Your task to perform on an android device: Is it going to rain this weekend? Image 0: 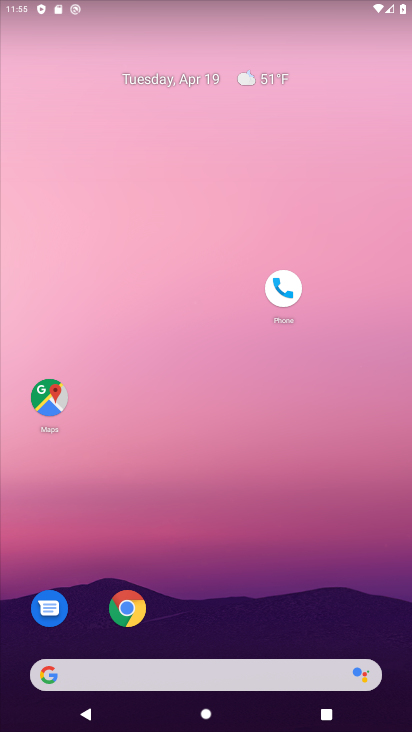
Step 0: click (130, 611)
Your task to perform on an android device: Is it going to rain this weekend? Image 1: 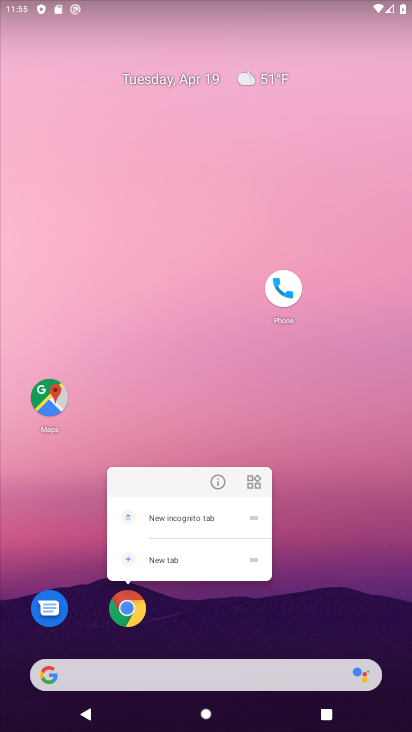
Step 1: click (213, 487)
Your task to perform on an android device: Is it going to rain this weekend? Image 2: 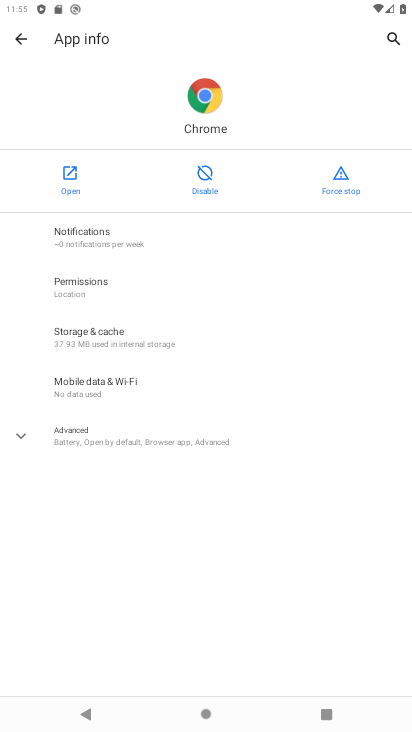
Step 2: click (67, 183)
Your task to perform on an android device: Is it going to rain this weekend? Image 3: 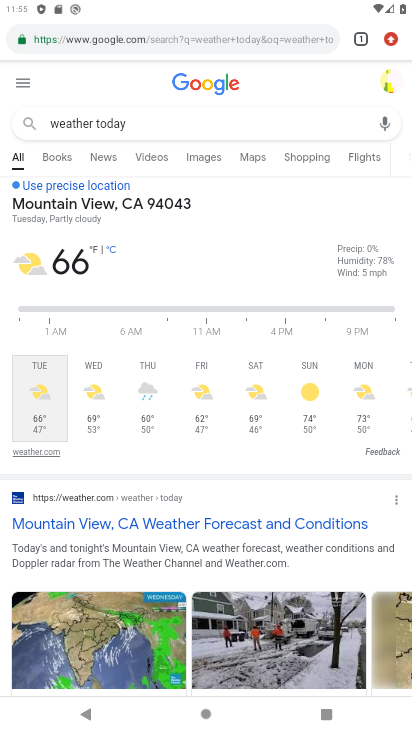
Step 3: click (129, 127)
Your task to perform on an android device: Is it going to rain this weekend? Image 4: 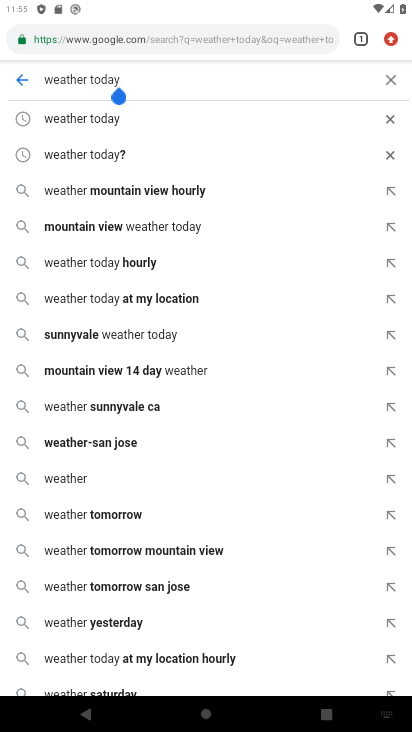
Step 4: click (383, 83)
Your task to perform on an android device: Is it going to rain this weekend? Image 5: 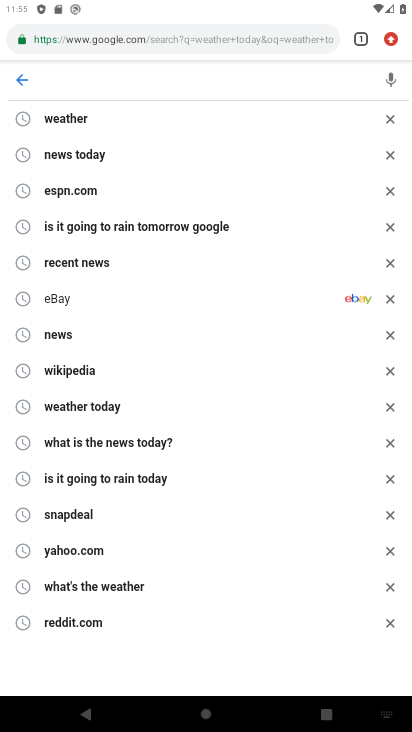
Step 5: type "is it going rain this weekend?"
Your task to perform on an android device: Is it going to rain this weekend? Image 6: 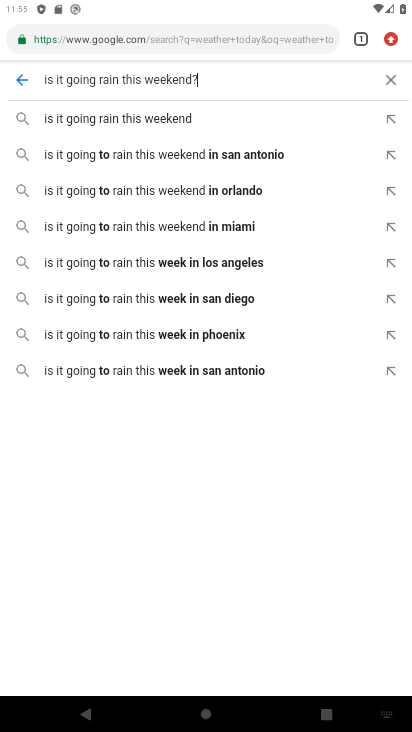
Step 6: click (120, 126)
Your task to perform on an android device: Is it going to rain this weekend? Image 7: 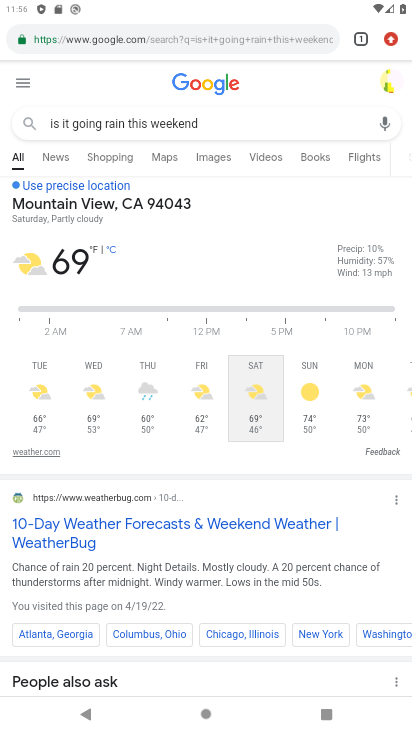
Step 7: task complete